Your task to perform on an android device: turn off sleep mode Image 0: 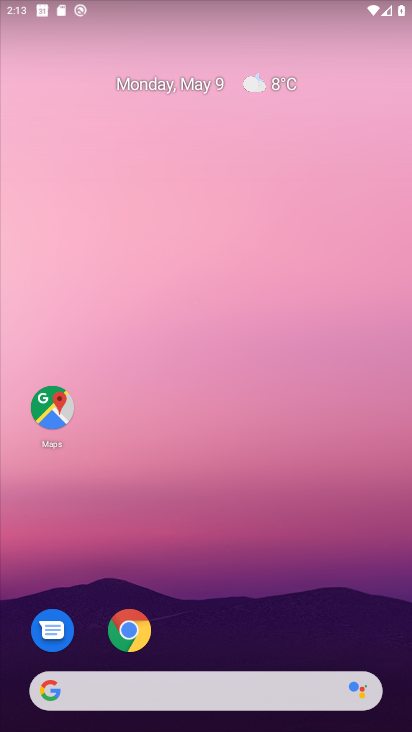
Step 0: drag from (253, 638) to (261, 63)
Your task to perform on an android device: turn off sleep mode Image 1: 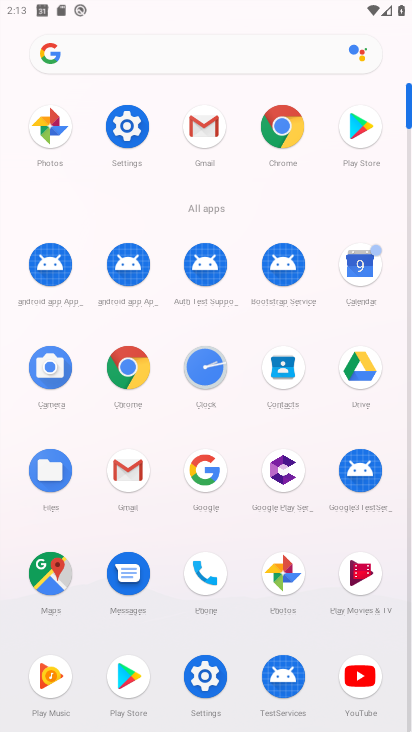
Step 1: click (138, 146)
Your task to perform on an android device: turn off sleep mode Image 2: 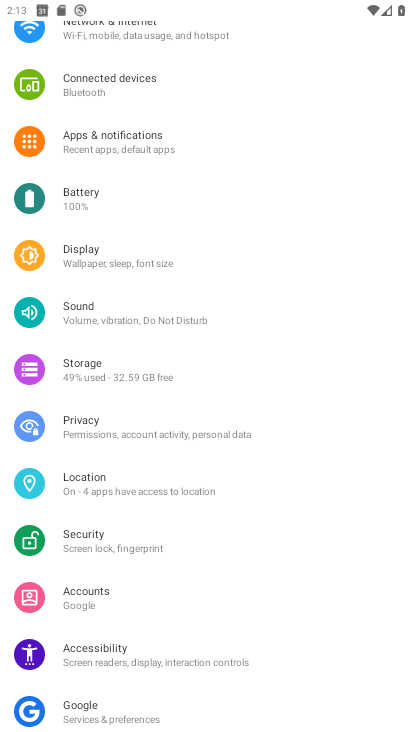
Step 2: drag from (255, 115) to (326, 578)
Your task to perform on an android device: turn off sleep mode Image 3: 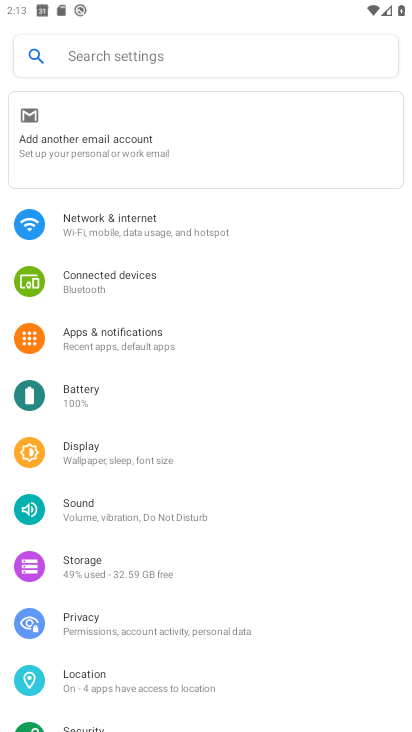
Step 3: click (229, 56)
Your task to perform on an android device: turn off sleep mode Image 4: 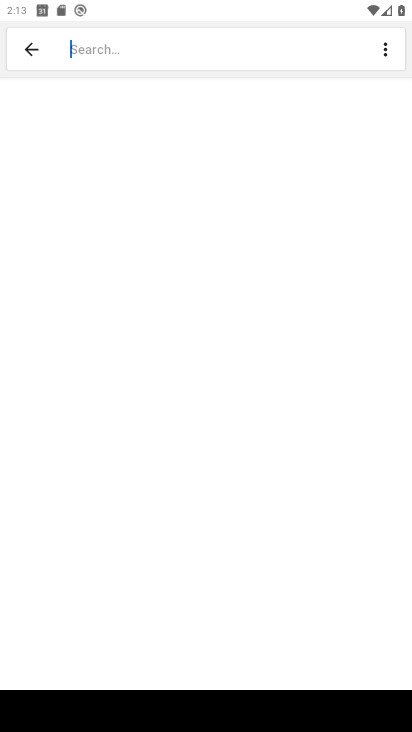
Step 4: type "sleep mode"
Your task to perform on an android device: turn off sleep mode Image 5: 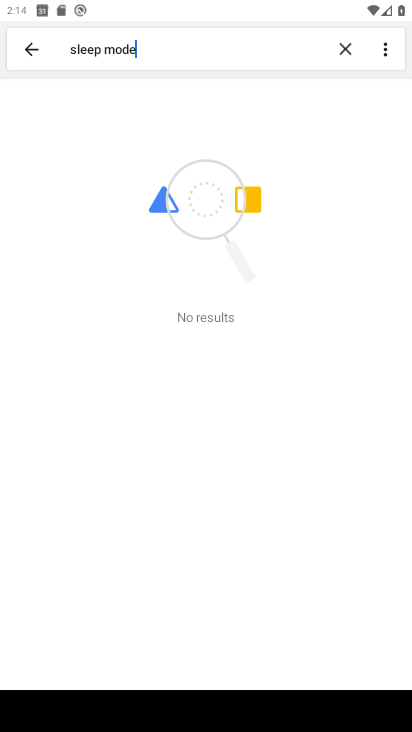
Step 5: task complete